Your task to perform on an android device: What's on my calendar today? Image 0: 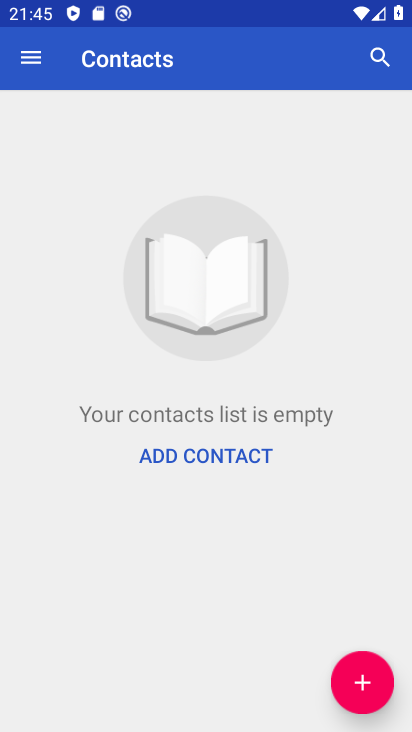
Step 0: press home button
Your task to perform on an android device: What's on my calendar today? Image 1: 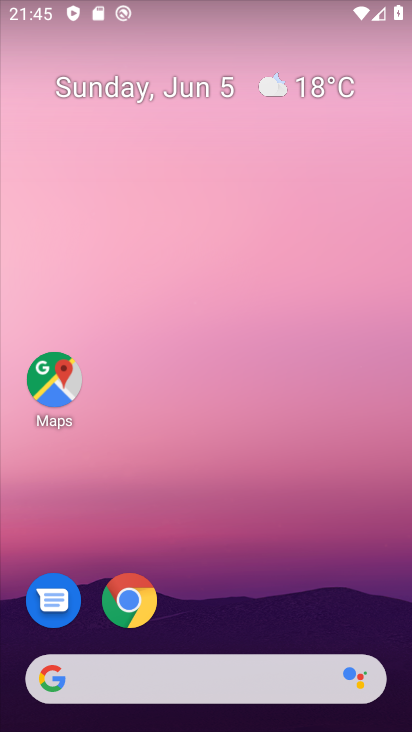
Step 1: drag from (269, 324) to (259, 160)
Your task to perform on an android device: What's on my calendar today? Image 2: 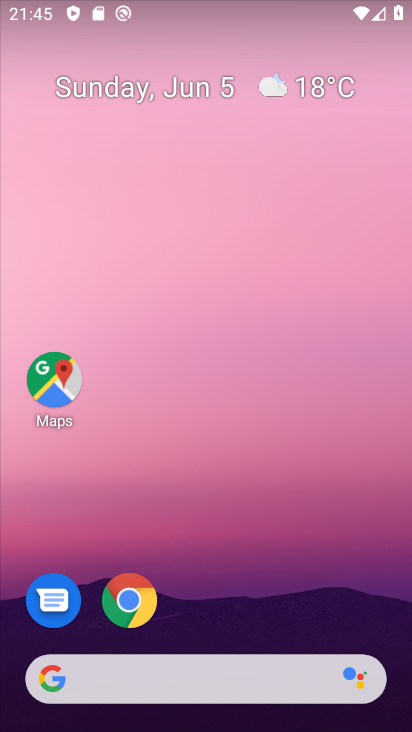
Step 2: drag from (239, 567) to (212, 217)
Your task to perform on an android device: What's on my calendar today? Image 3: 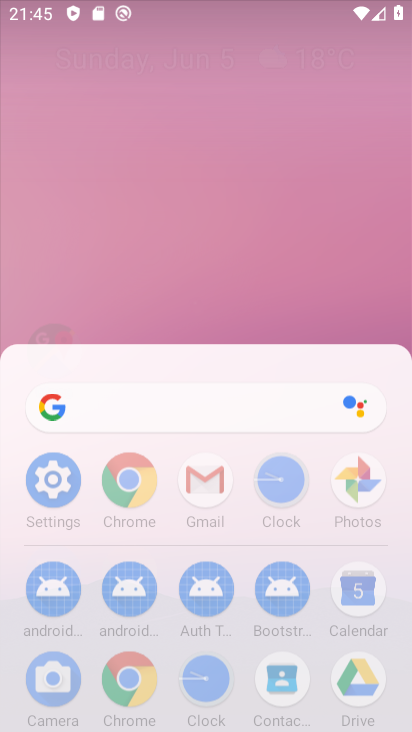
Step 3: click (214, 194)
Your task to perform on an android device: What's on my calendar today? Image 4: 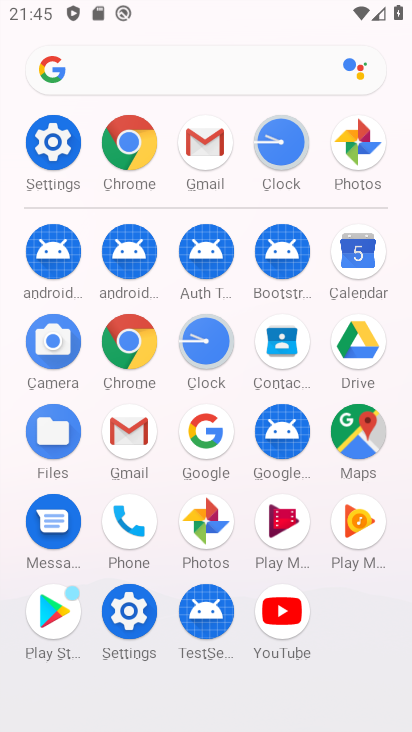
Step 4: click (356, 254)
Your task to perform on an android device: What's on my calendar today? Image 5: 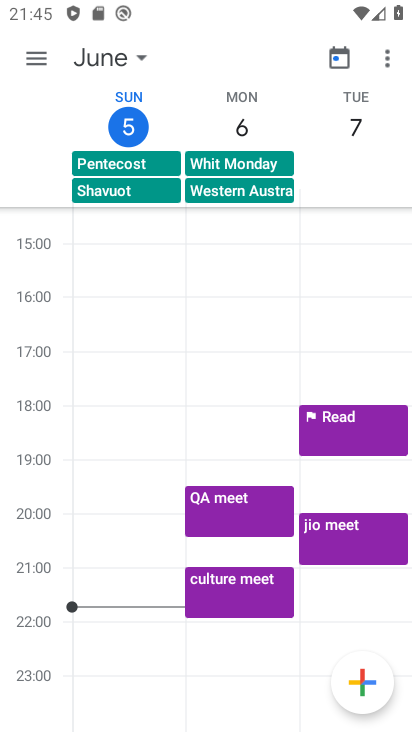
Step 5: task complete